Your task to perform on an android device: turn off data saver in the chrome app Image 0: 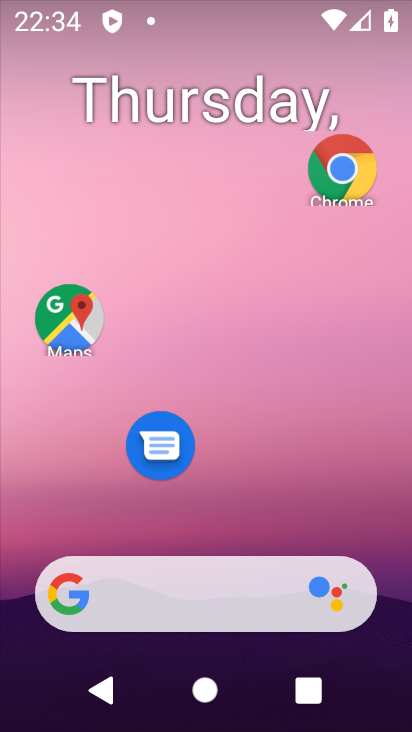
Step 0: drag from (297, 482) to (234, 5)
Your task to perform on an android device: turn off data saver in the chrome app Image 1: 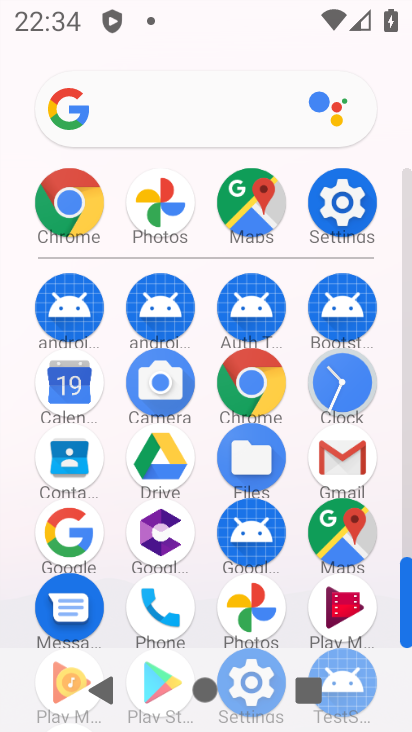
Step 1: drag from (213, 637) to (234, 151)
Your task to perform on an android device: turn off data saver in the chrome app Image 2: 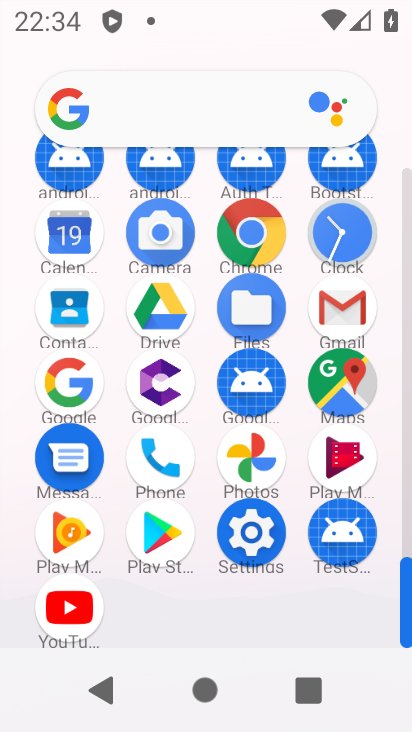
Step 2: drag from (202, 510) to (192, 177)
Your task to perform on an android device: turn off data saver in the chrome app Image 3: 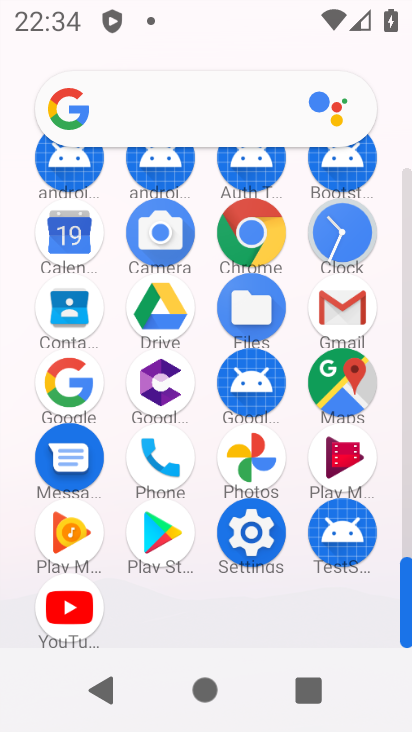
Step 3: drag from (201, 574) to (203, 163)
Your task to perform on an android device: turn off data saver in the chrome app Image 4: 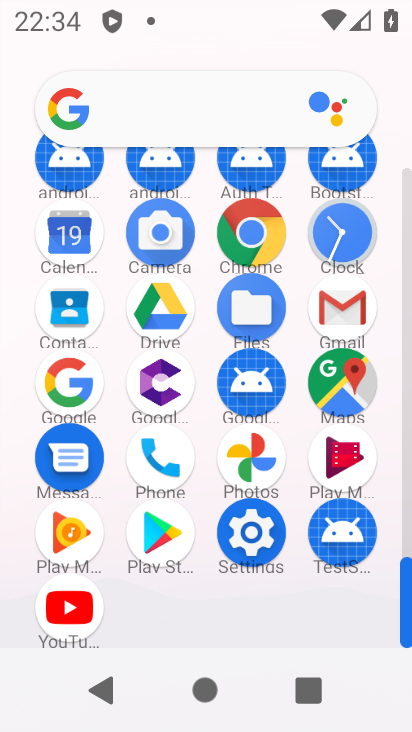
Step 4: click (256, 234)
Your task to perform on an android device: turn off data saver in the chrome app Image 5: 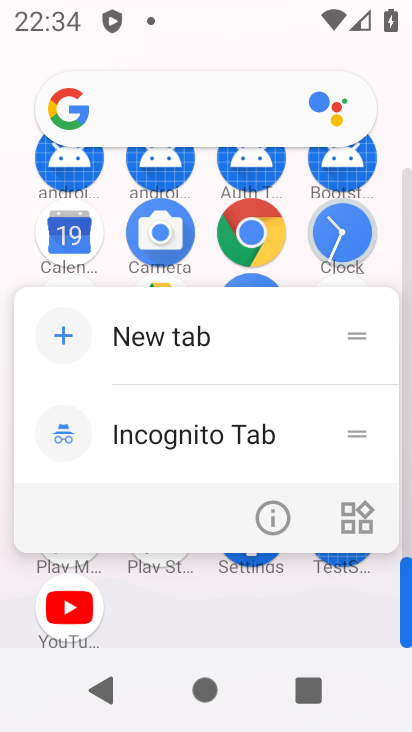
Step 5: click (287, 514)
Your task to perform on an android device: turn off data saver in the chrome app Image 6: 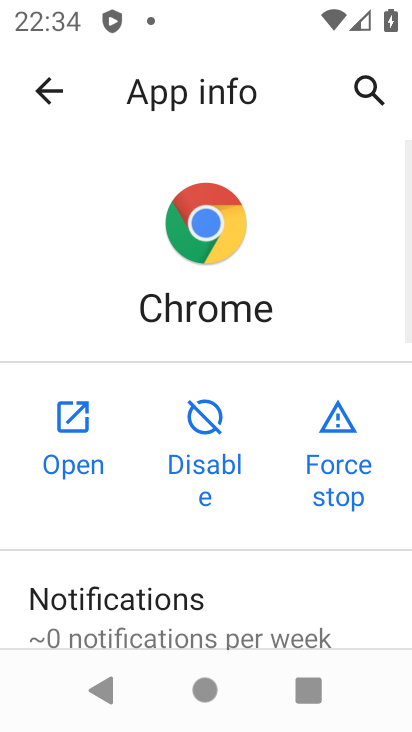
Step 6: click (74, 423)
Your task to perform on an android device: turn off data saver in the chrome app Image 7: 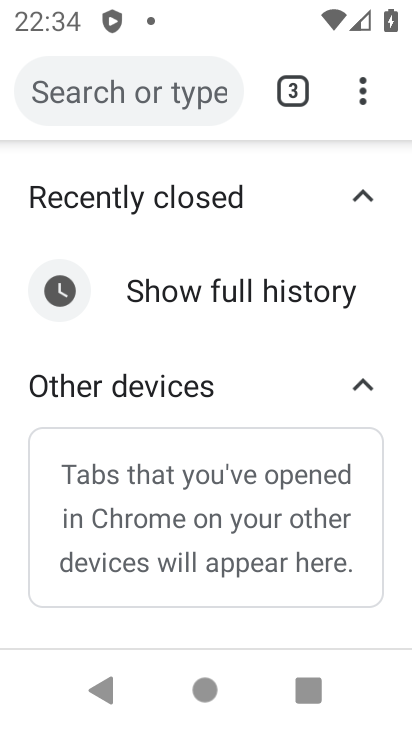
Step 7: click (345, 96)
Your task to perform on an android device: turn off data saver in the chrome app Image 8: 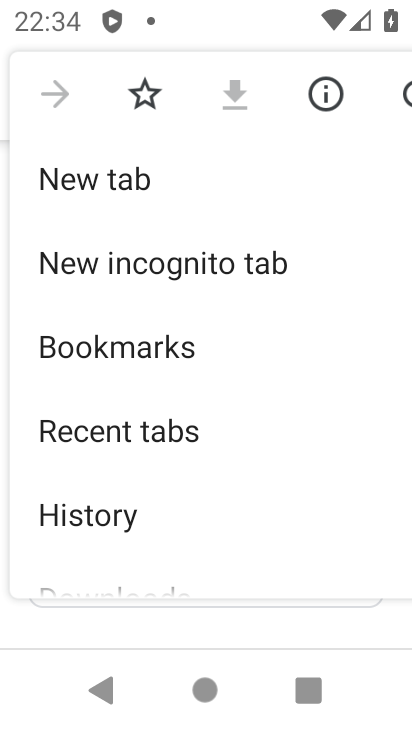
Step 8: drag from (255, 453) to (330, 165)
Your task to perform on an android device: turn off data saver in the chrome app Image 9: 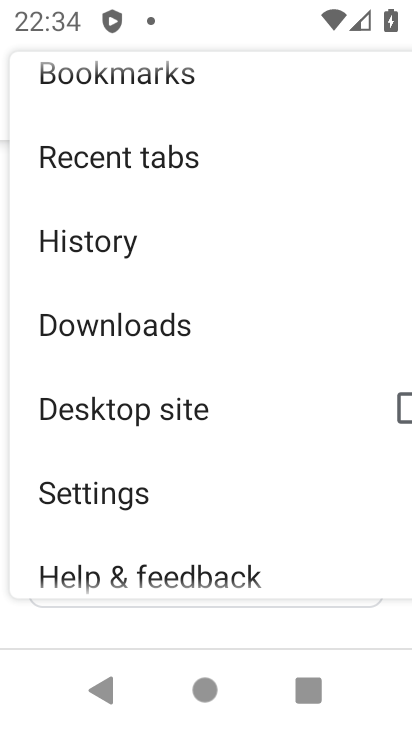
Step 9: click (159, 470)
Your task to perform on an android device: turn off data saver in the chrome app Image 10: 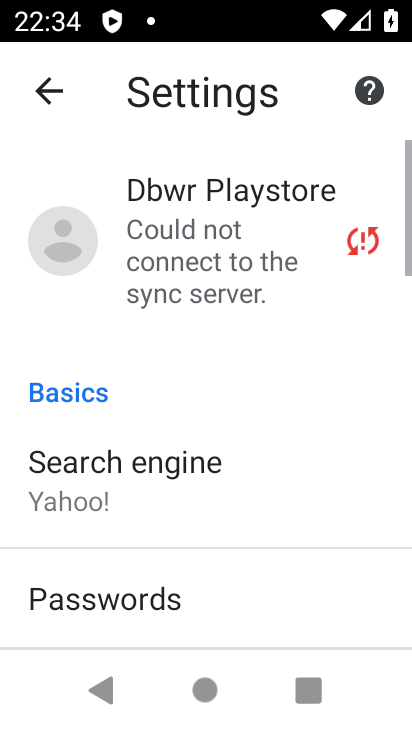
Step 10: drag from (194, 565) to (248, 246)
Your task to perform on an android device: turn off data saver in the chrome app Image 11: 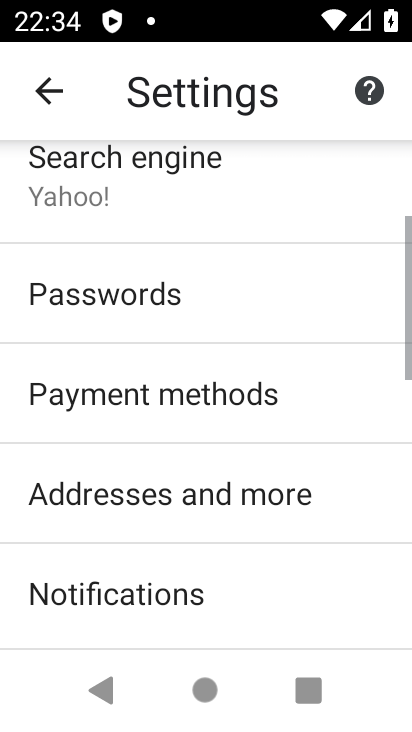
Step 11: drag from (183, 596) to (268, 202)
Your task to perform on an android device: turn off data saver in the chrome app Image 12: 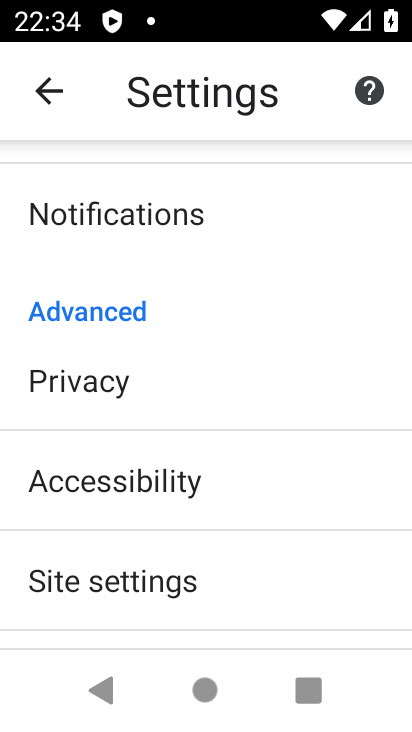
Step 12: drag from (164, 517) to (199, 297)
Your task to perform on an android device: turn off data saver in the chrome app Image 13: 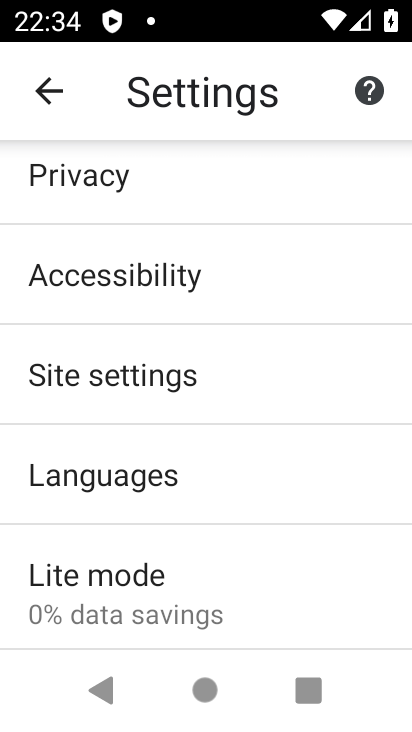
Step 13: click (163, 562)
Your task to perform on an android device: turn off data saver in the chrome app Image 14: 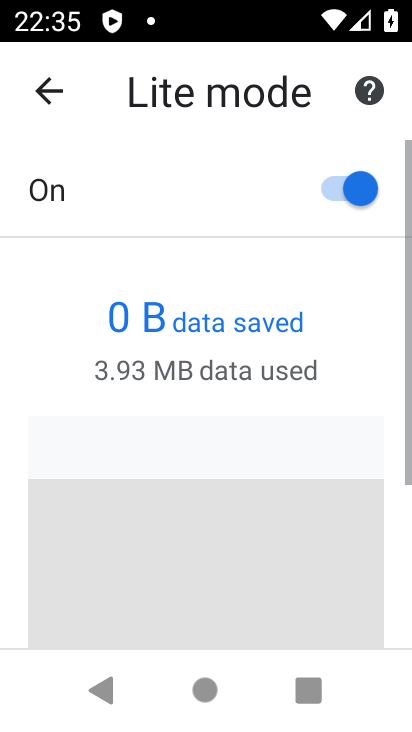
Step 14: click (318, 191)
Your task to perform on an android device: turn off data saver in the chrome app Image 15: 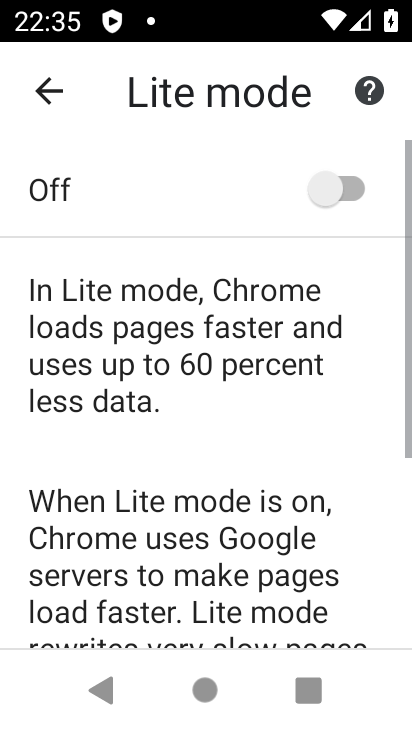
Step 15: task complete